Your task to perform on an android device: Open battery settings Image 0: 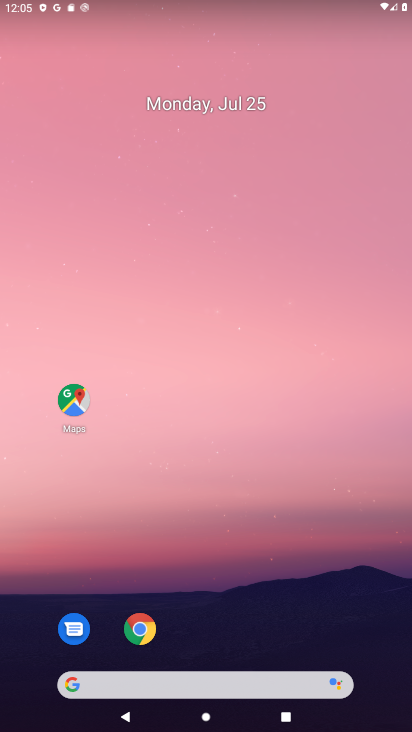
Step 0: drag from (332, 546) to (333, 0)
Your task to perform on an android device: Open battery settings Image 1: 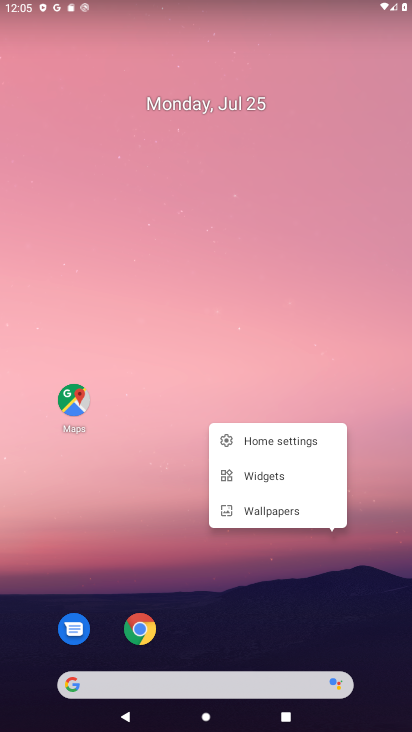
Step 1: click (186, 307)
Your task to perform on an android device: Open battery settings Image 2: 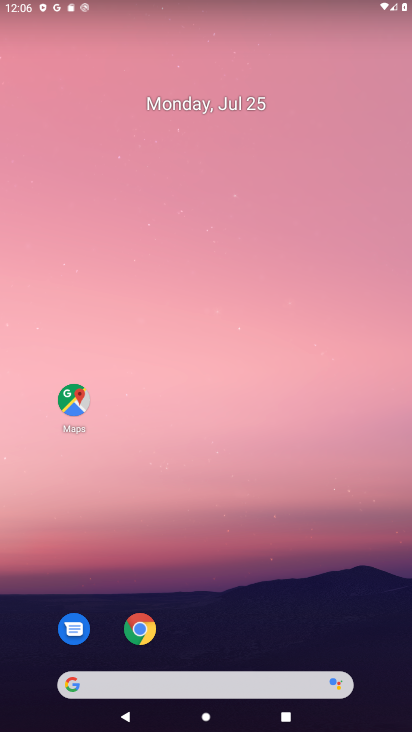
Step 2: drag from (307, 573) to (306, 33)
Your task to perform on an android device: Open battery settings Image 3: 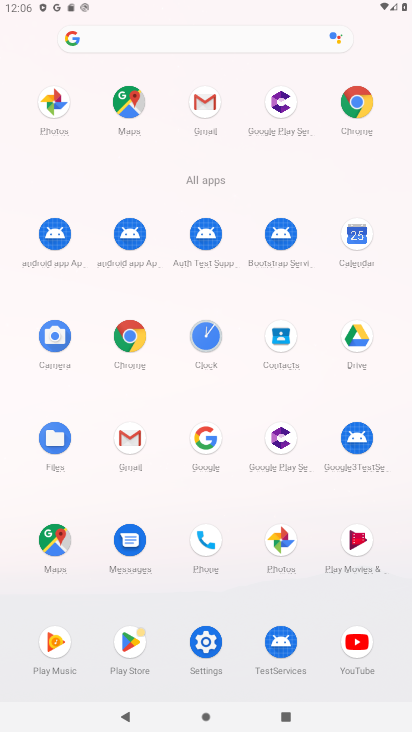
Step 3: click (203, 652)
Your task to perform on an android device: Open battery settings Image 4: 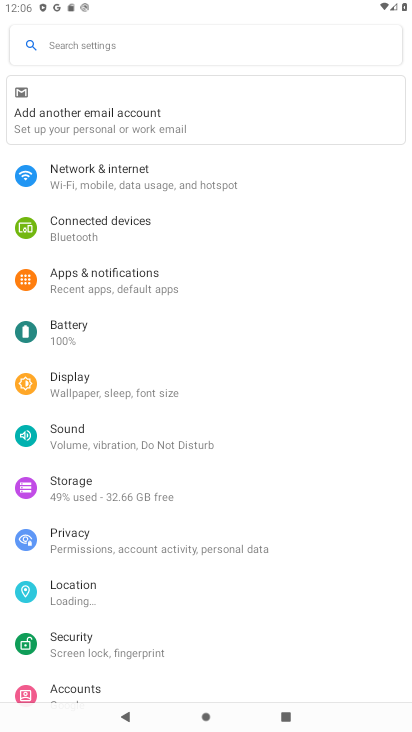
Step 4: drag from (226, 660) to (225, 179)
Your task to perform on an android device: Open battery settings Image 5: 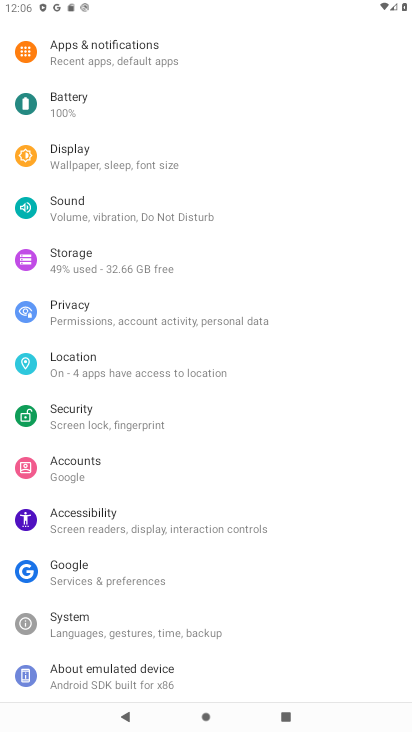
Step 5: click (71, 110)
Your task to perform on an android device: Open battery settings Image 6: 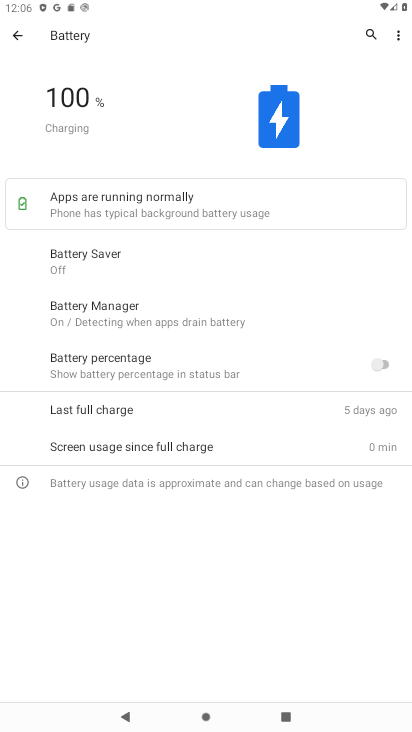
Step 6: task complete